Your task to perform on an android device: Check the news Image 0: 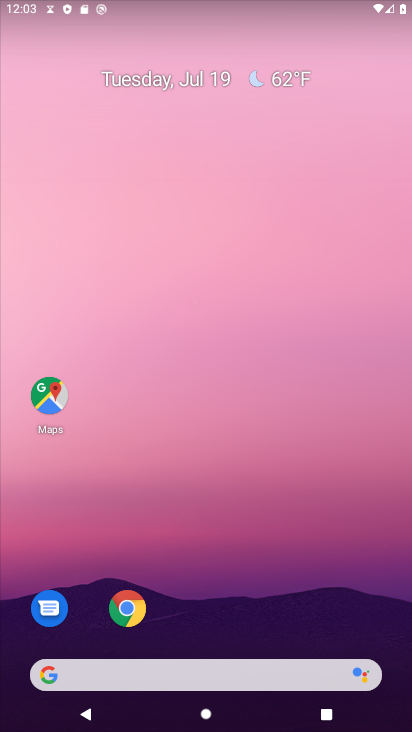
Step 0: drag from (233, 632) to (193, 163)
Your task to perform on an android device: Check the news Image 1: 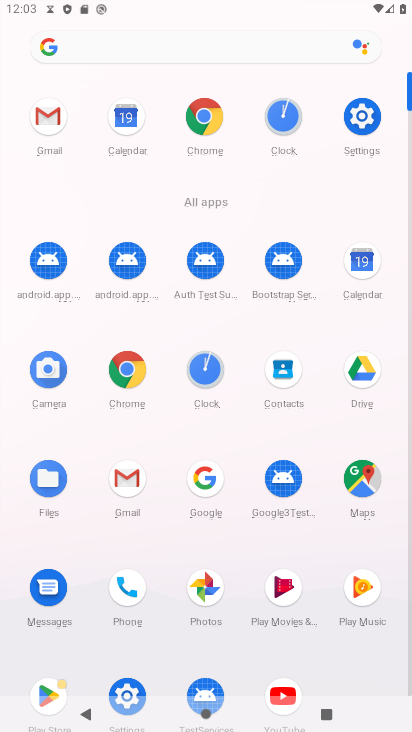
Step 1: click (198, 128)
Your task to perform on an android device: Check the news Image 2: 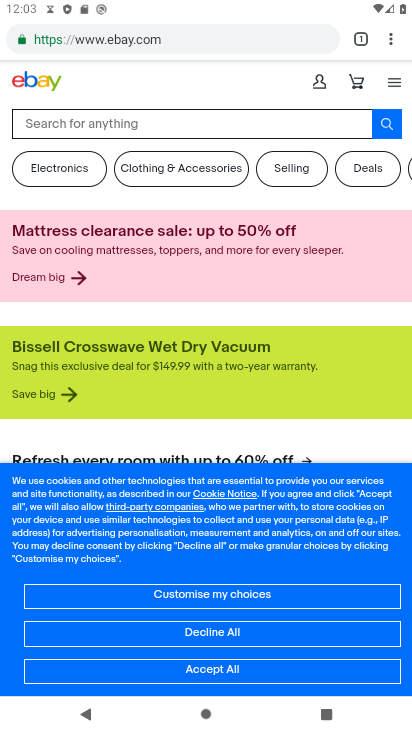
Step 2: click (255, 28)
Your task to perform on an android device: Check the news Image 3: 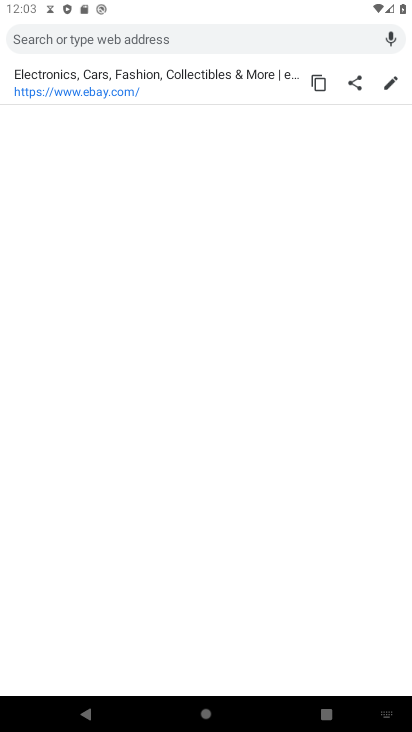
Step 3: type "Check the news"
Your task to perform on an android device: Check the news Image 4: 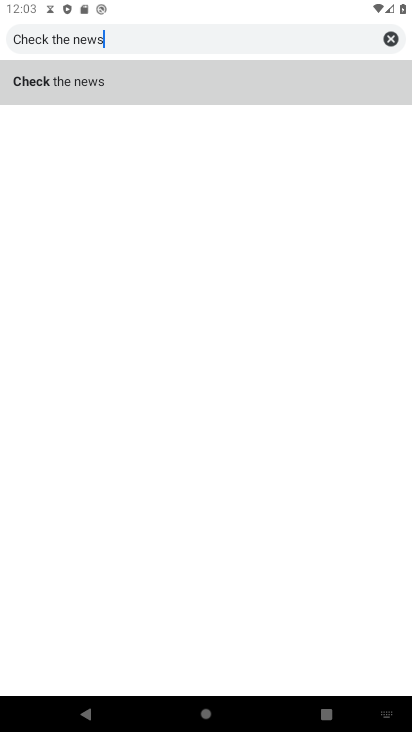
Step 4: click (159, 84)
Your task to perform on an android device: Check the news Image 5: 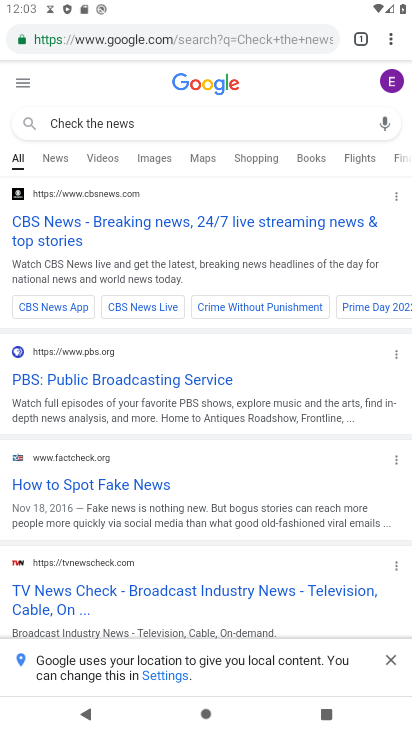
Step 5: click (270, 223)
Your task to perform on an android device: Check the news Image 6: 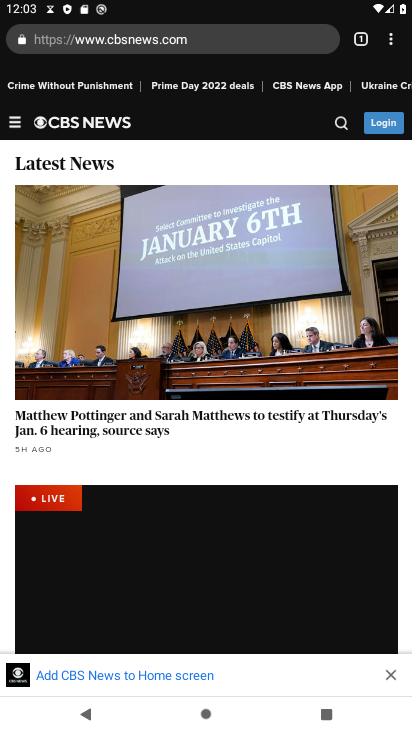
Step 6: task complete